Your task to perform on an android device: Open settings Image 0: 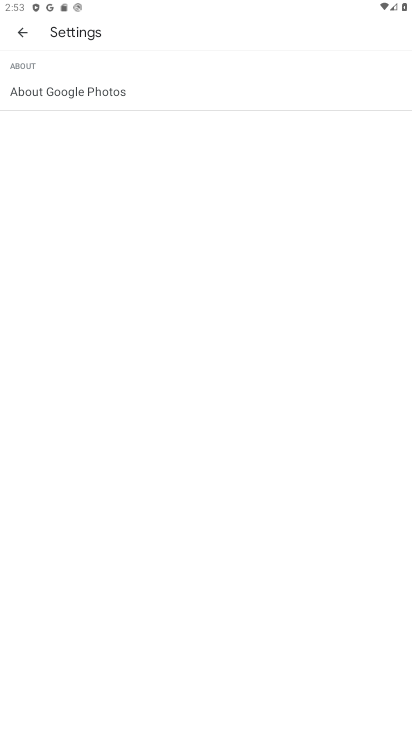
Step 0: press home button
Your task to perform on an android device: Open settings Image 1: 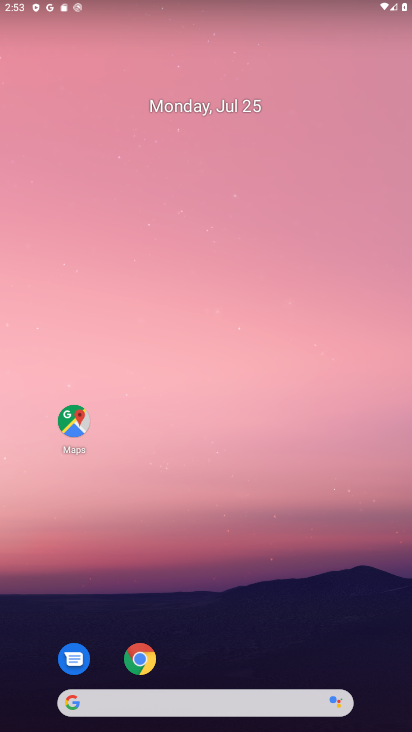
Step 1: drag from (220, 700) to (186, 25)
Your task to perform on an android device: Open settings Image 2: 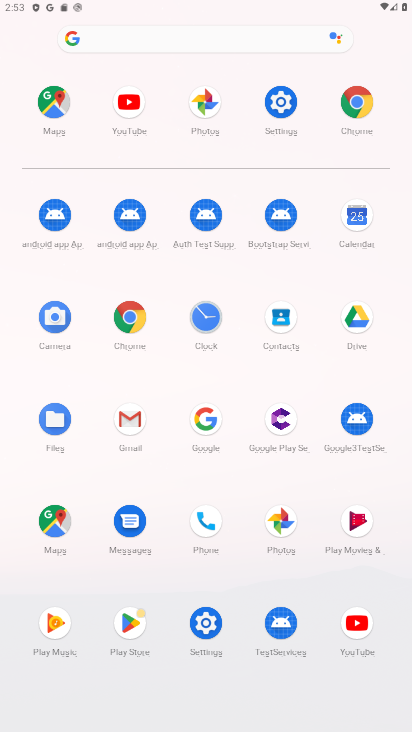
Step 2: click (212, 623)
Your task to perform on an android device: Open settings Image 3: 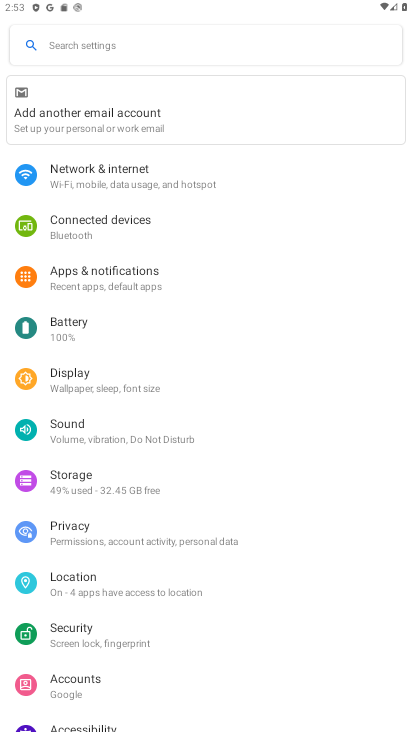
Step 3: task complete